Your task to perform on an android device: Open Youtube and go to "Your channel" Image 0: 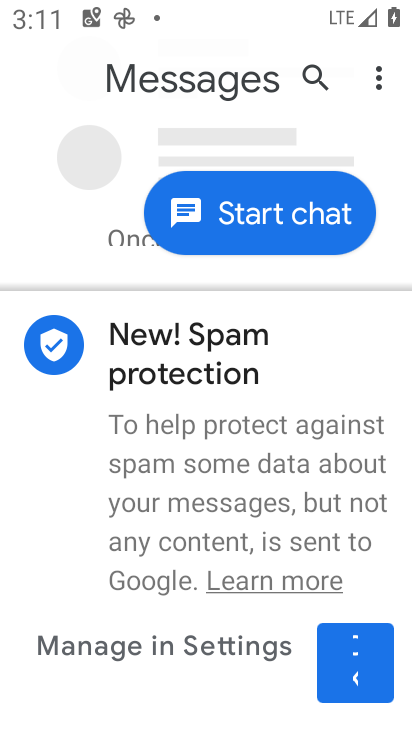
Step 0: press home button
Your task to perform on an android device: Open Youtube and go to "Your channel" Image 1: 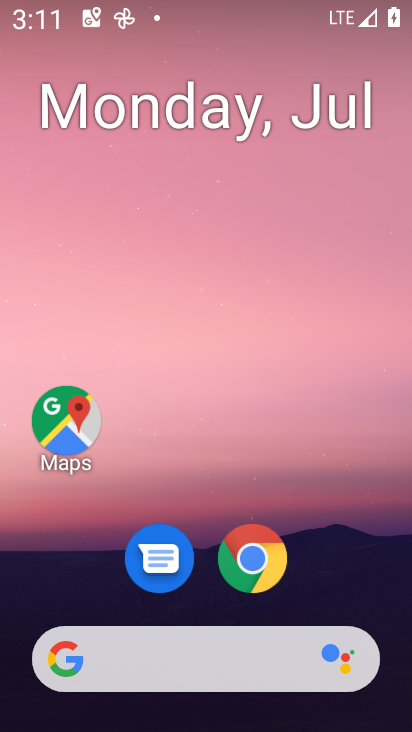
Step 1: drag from (374, 585) to (354, 37)
Your task to perform on an android device: Open Youtube and go to "Your channel" Image 2: 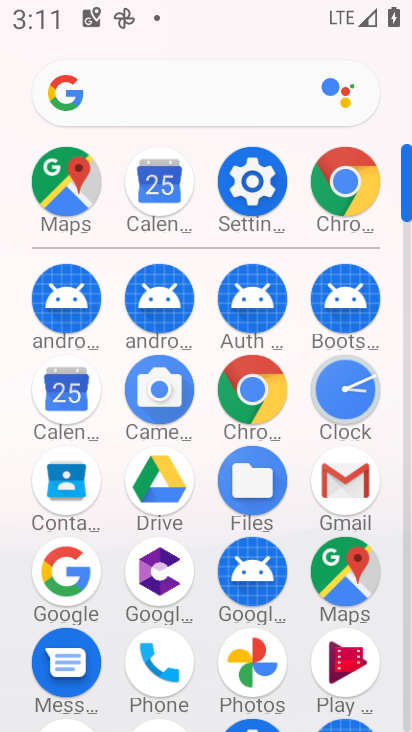
Step 2: click (350, 558)
Your task to perform on an android device: Open Youtube and go to "Your channel" Image 3: 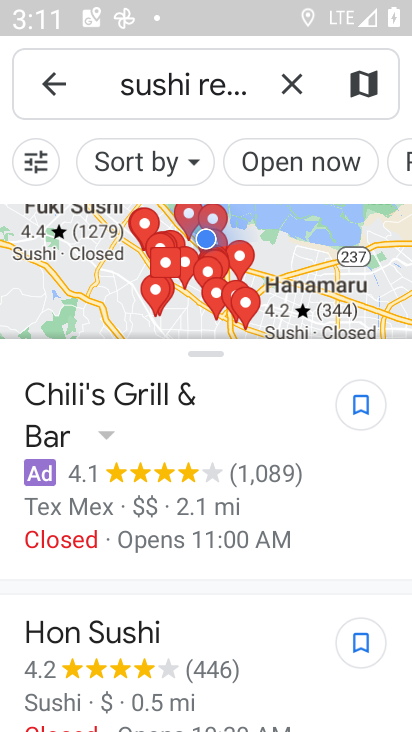
Step 3: press back button
Your task to perform on an android device: Open Youtube and go to "Your channel" Image 4: 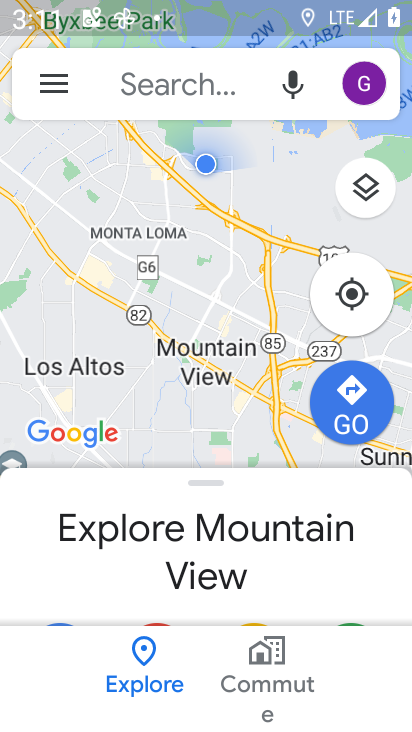
Step 4: click (53, 85)
Your task to perform on an android device: Open Youtube and go to "Your channel" Image 5: 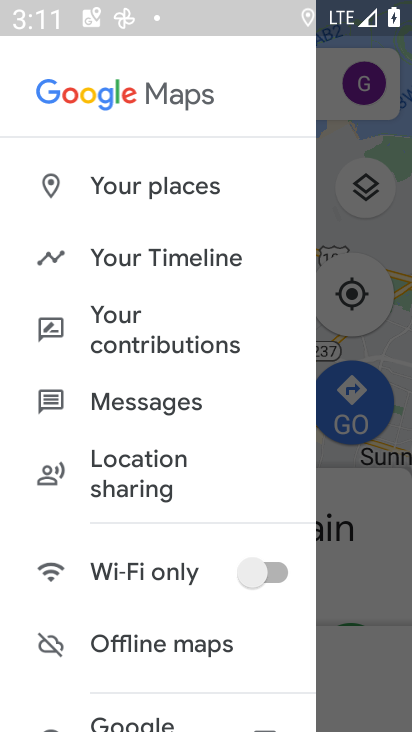
Step 5: drag from (239, 481) to (232, 379)
Your task to perform on an android device: Open Youtube and go to "Your channel" Image 6: 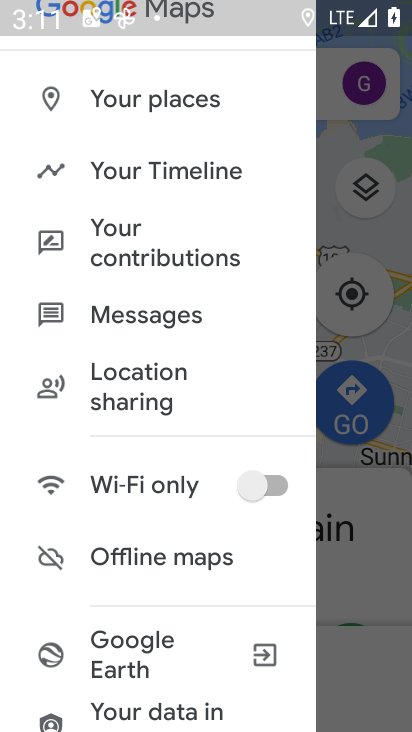
Step 6: click (180, 163)
Your task to perform on an android device: Open Youtube and go to "Your channel" Image 7: 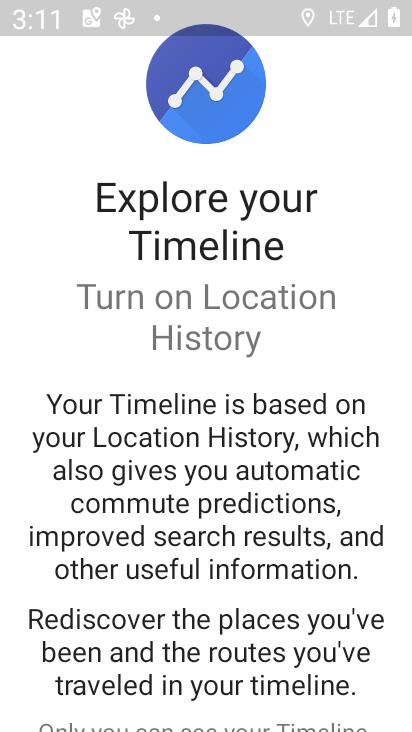
Step 7: drag from (245, 522) to (244, 368)
Your task to perform on an android device: Open Youtube and go to "Your channel" Image 8: 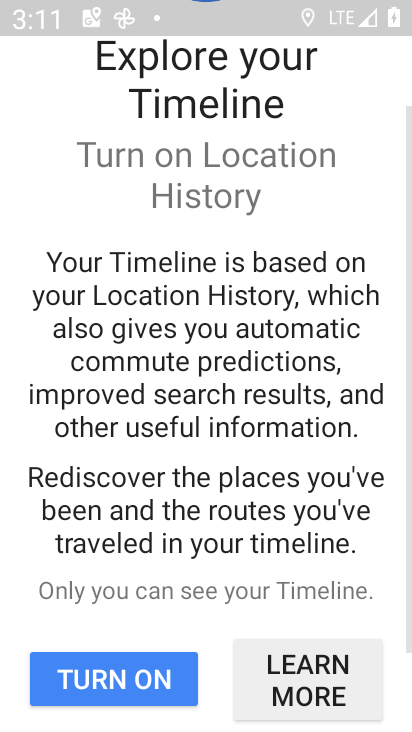
Step 8: drag from (232, 553) to (229, 314)
Your task to perform on an android device: Open Youtube and go to "Your channel" Image 9: 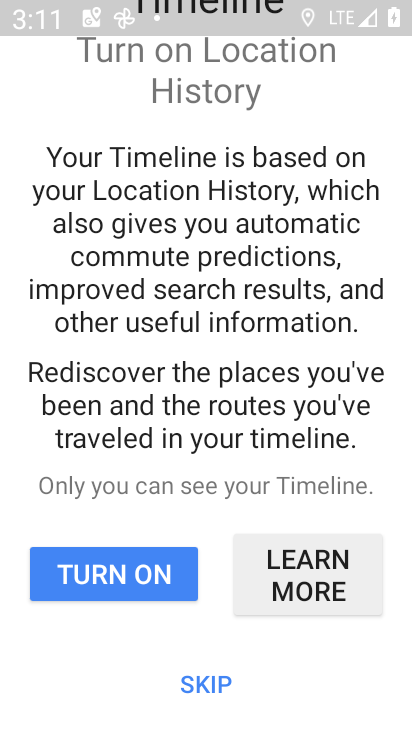
Step 9: click (207, 683)
Your task to perform on an android device: Open Youtube and go to "Your channel" Image 10: 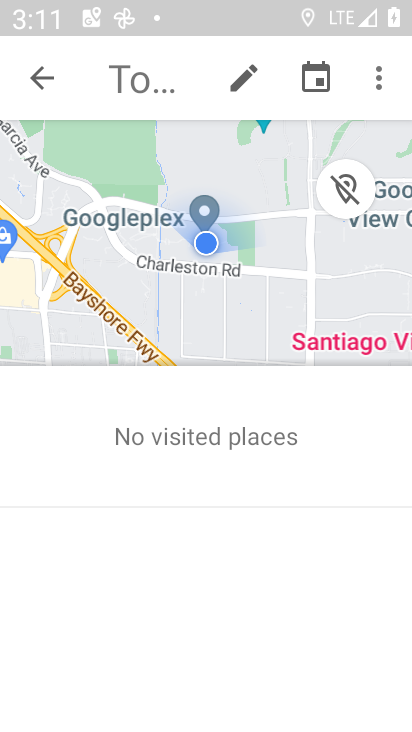
Step 10: task complete